Your task to perform on an android device: Go to Amazon Image 0: 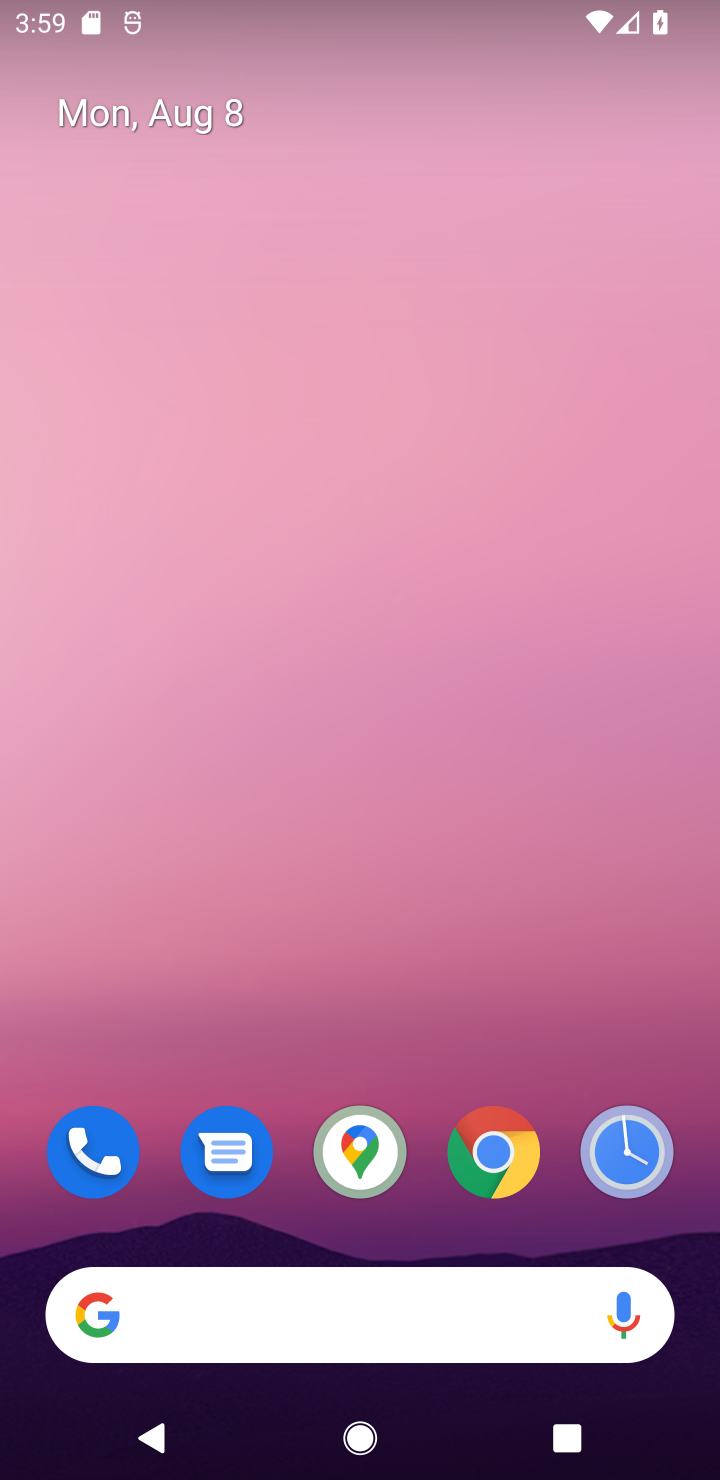
Step 0: click (468, 1131)
Your task to perform on an android device: Go to Amazon Image 1: 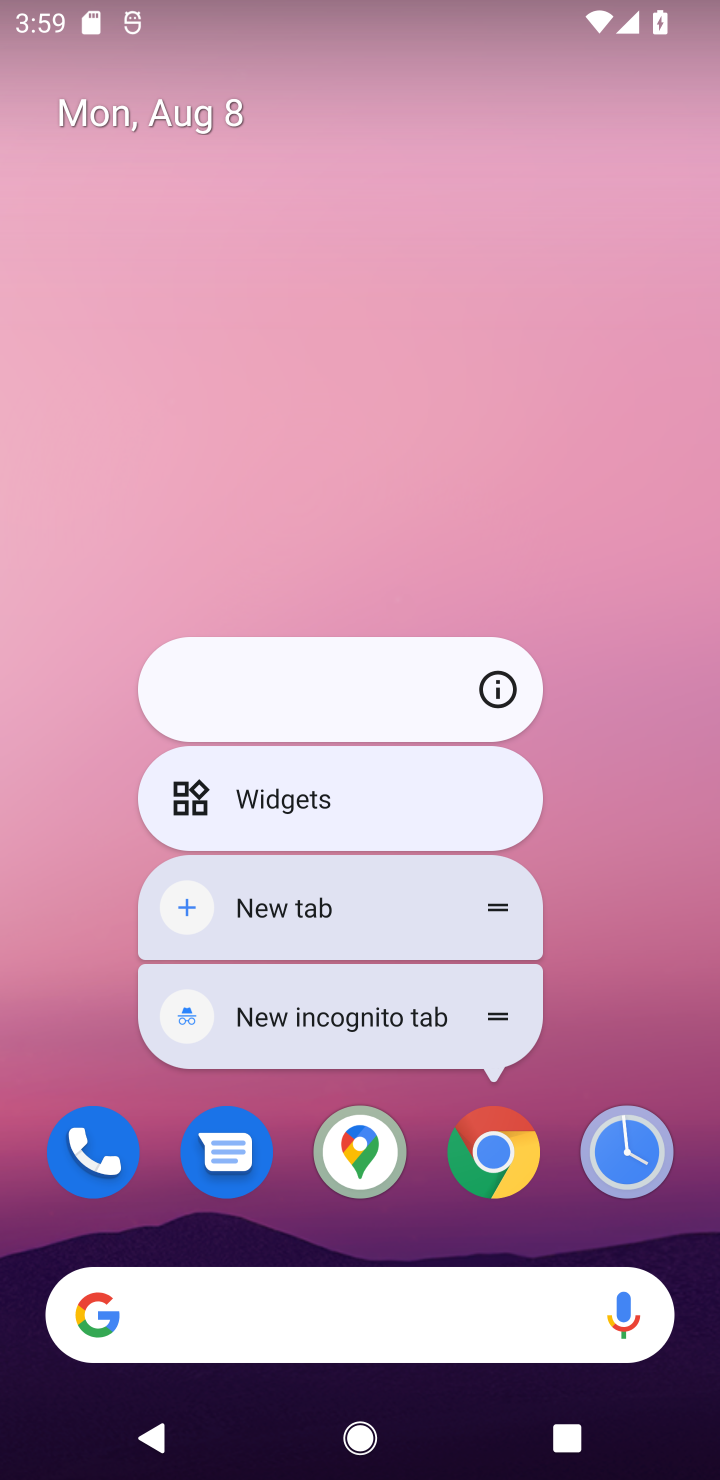
Step 1: click (501, 1159)
Your task to perform on an android device: Go to Amazon Image 2: 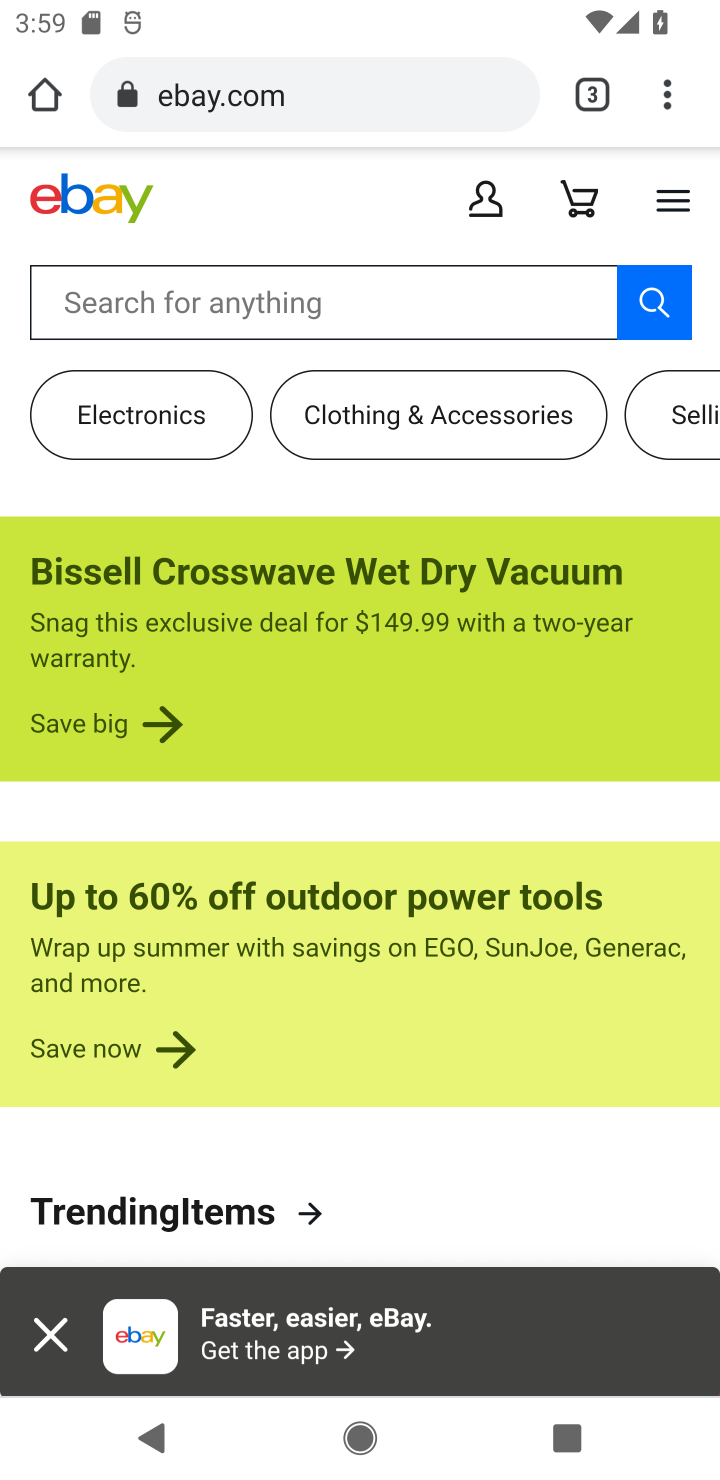
Step 2: click (593, 91)
Your task to perform on an android device: Go to Amazon Image 3: 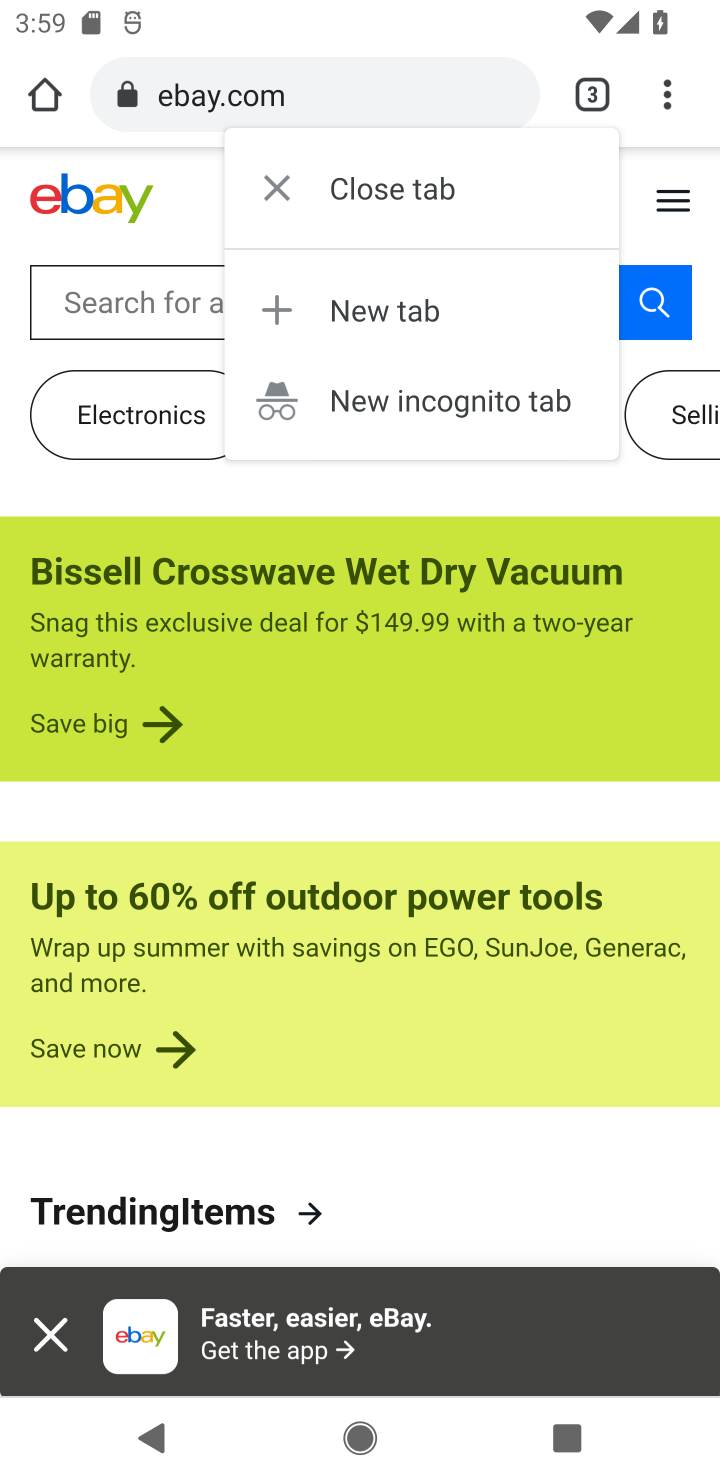
Step 3: click (596, 82)
Your task to perform on an android device: Go to Amazon Image 4: 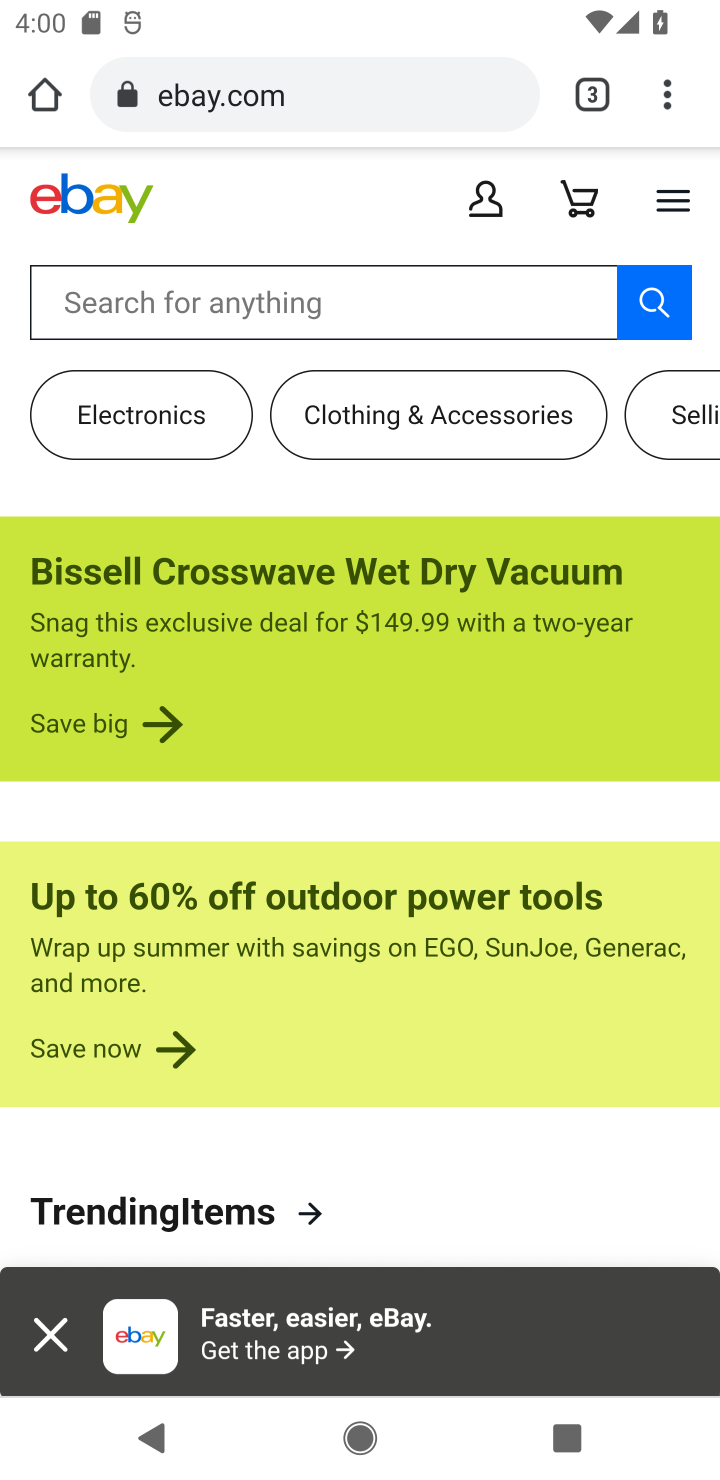
Step 4: click (594, 96)
Your task to perform on an android device: Go to Amazon Image 5: 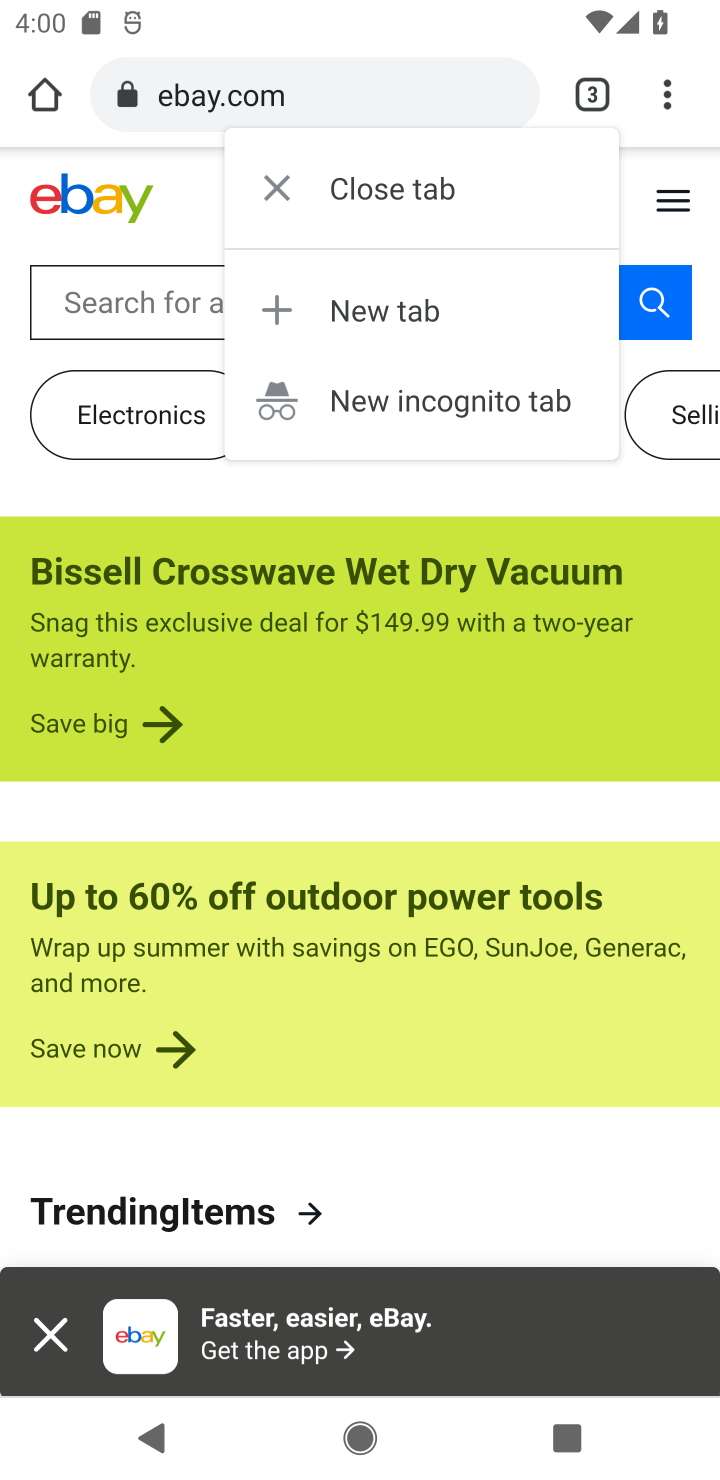
Step 5: click (391, 301)
Your task to perform on an android device: Go to Amazon Image 6: 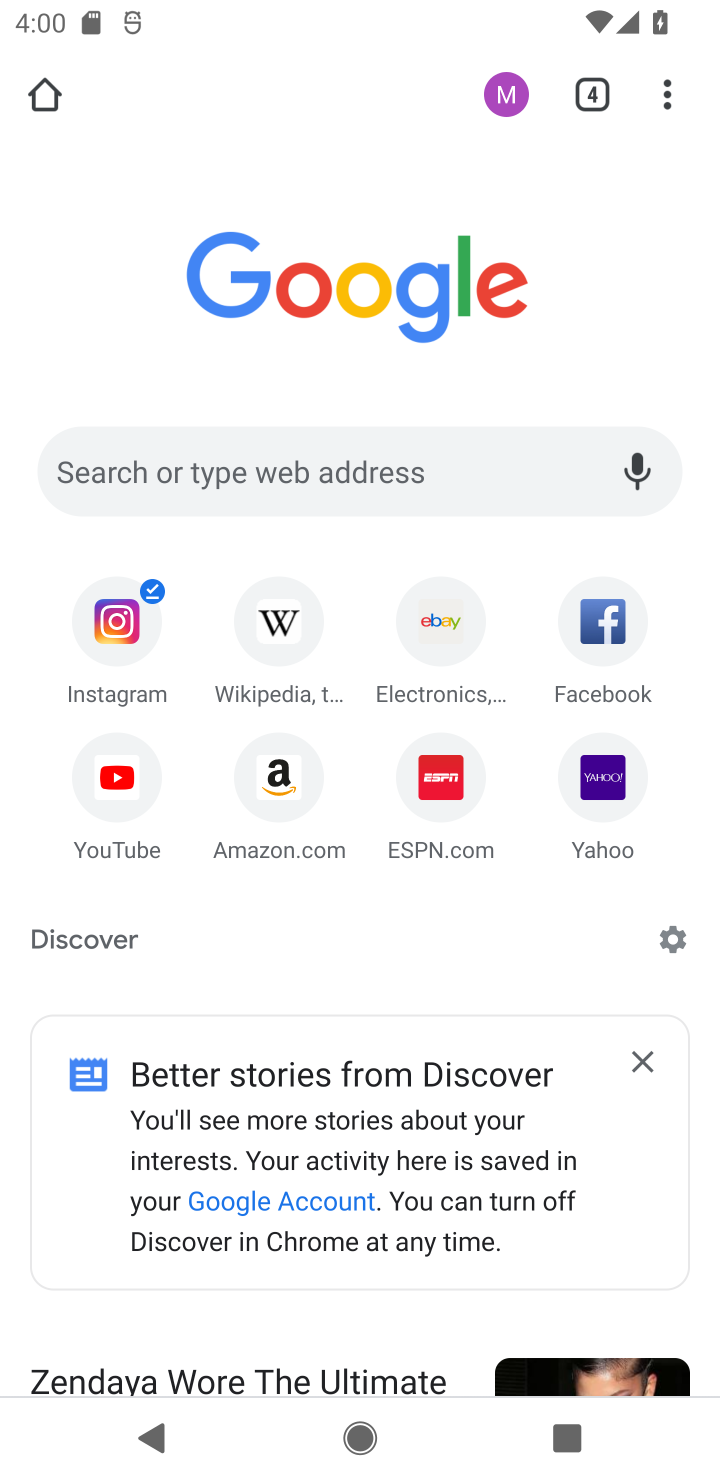
Step 6: click (269, 768)
Your task to perform on an android device: Go to Amazon Image 7: 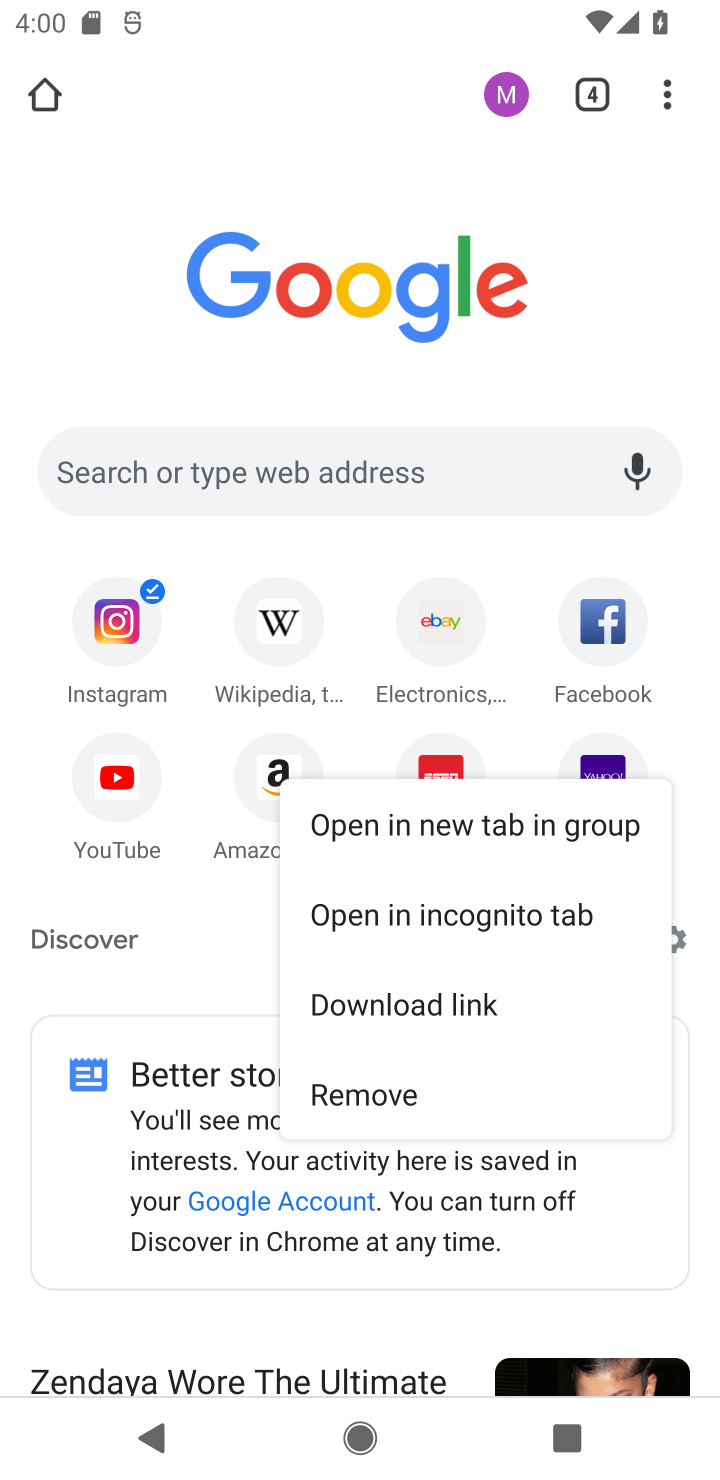
Step 7: click (263, 776)
Your task to perform on an android device: Go to Amazon Image 8: 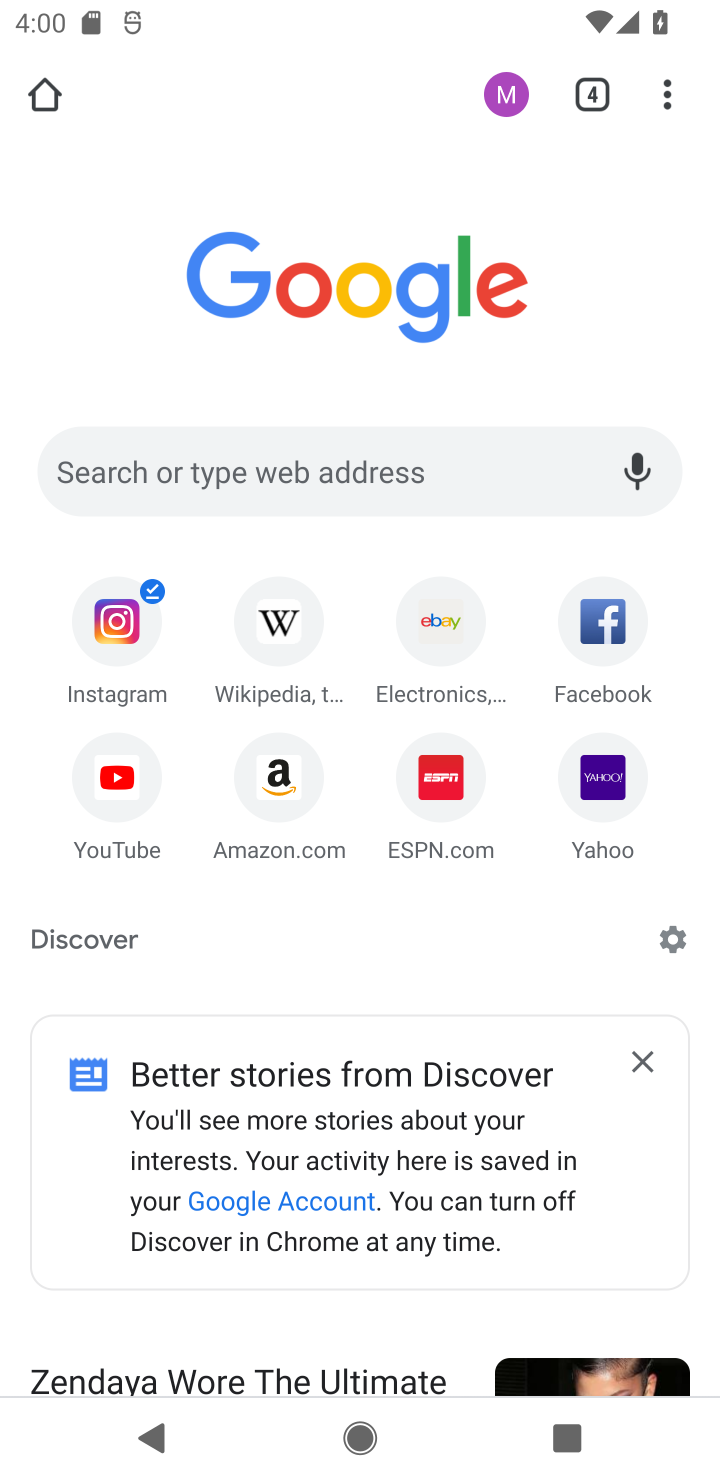
Step 8: click (279, 782)
Your task to perform on an android device: Go to Amazon Image 9: 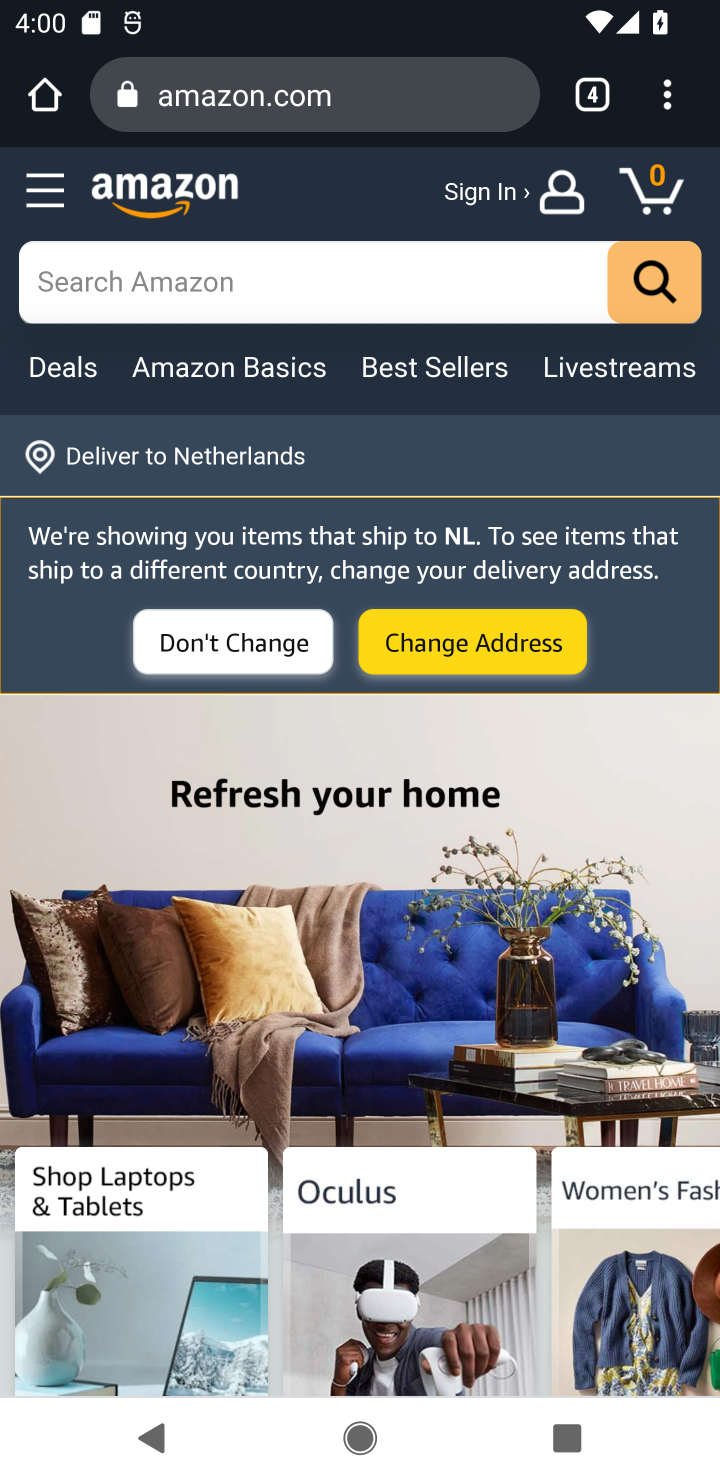
Step 9: task complete